Your task to perform on an android device: Go to battery settings Image 0: 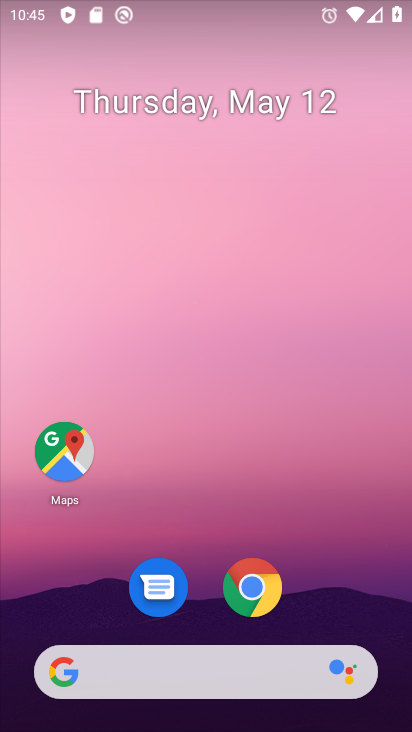
Step 0: drag from (342, 563) to (234, 14)
Your task to perform on an android device: Go to battery settings Image 1: 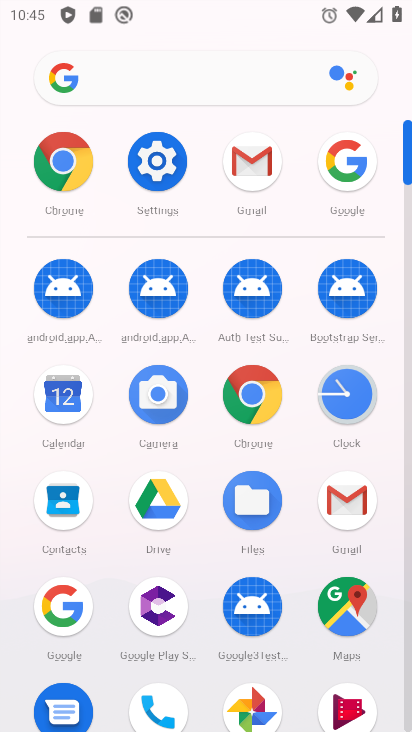
Step 1: click (166, 179)
Your task to perform on an android device: Go to battery settings Image 2: 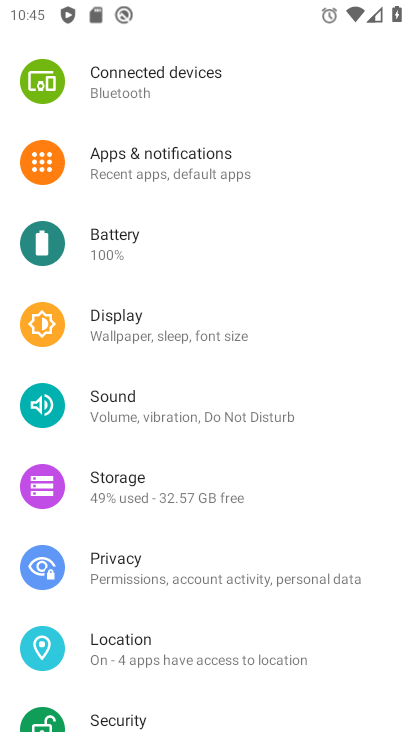
Step 2: click (145, 245)
Your task to perform on an android device: Go to battery settings Image 3: 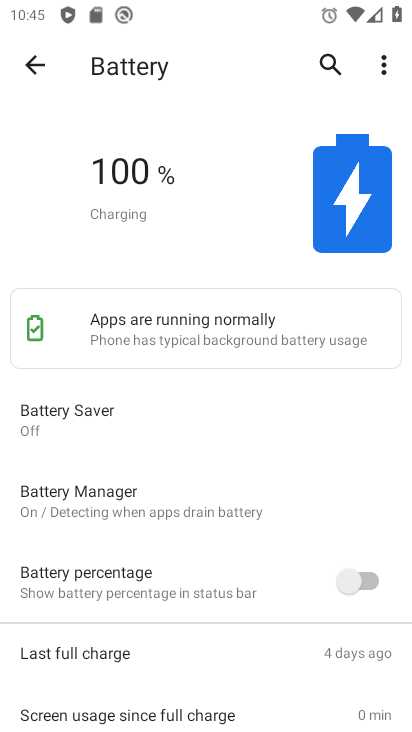
Step 3: task complete